Your task to perform on an android device: Do I have any events this weekend? Image 0: 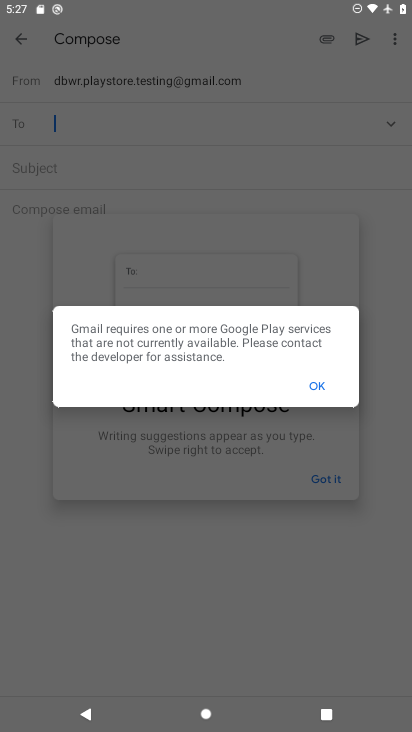
Step 0: press home button
Your task to perform on an android device: Do I have any events this weekend? Image 1: 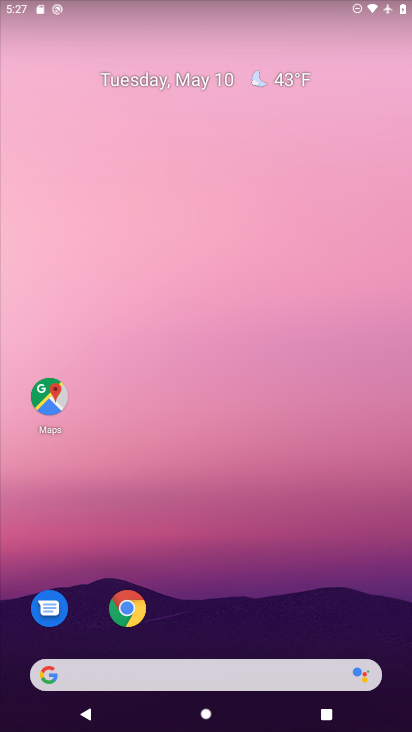
Step 1: drag from (201, 669) to (321, 172)
Your task to perform on an android device: Do I have any events this weekend? Image 2: 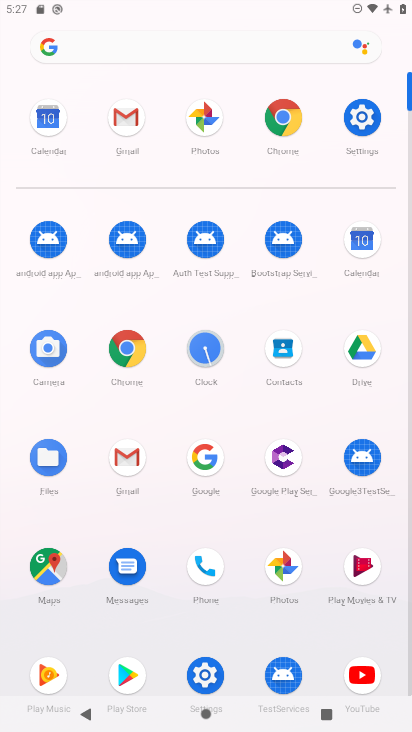
Step 2: click (372, 243)
Your task to perform on an android device: Do I have any events this weekend? Image 3: 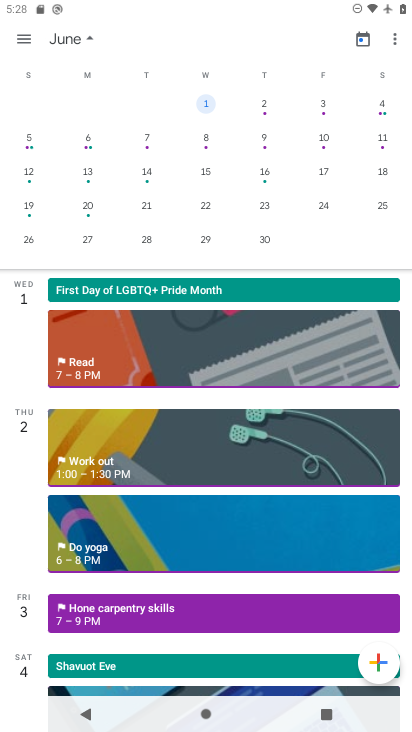
Step 3: drag from (12, 185) to (395, 228)
Your task to perform on an android device: Do I have any events this weekend? Image 4: 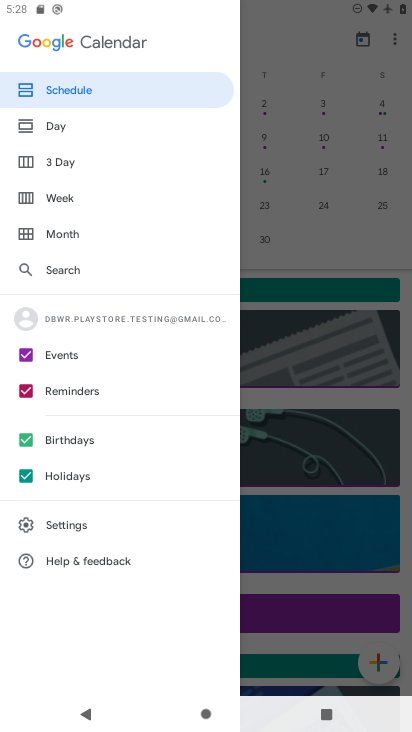
Step 4: drag from (366, 253) to (110, 265)
Your task to perform on an android device: Do I have any events this weekend? Image 5: 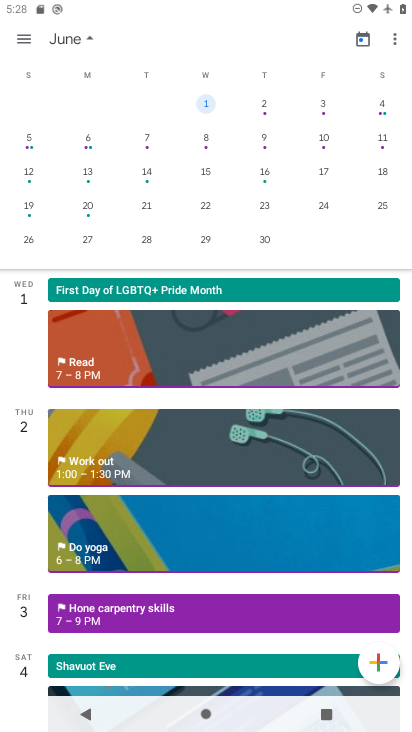
Step 5: drag from (148, 163) to (400, 189)
Your task to perform on an android device: Do I have any events this weekend? Image 6: 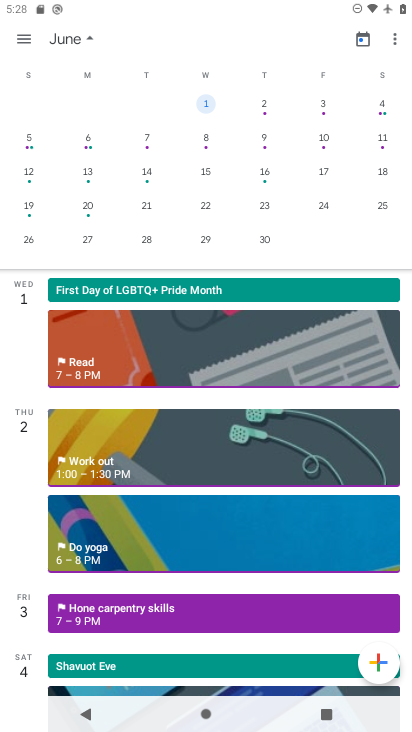
Step 6: drag from (55, 186) to (410, 206)
Your task to perform on an android device: Do I have any events this weekend? Image 7: 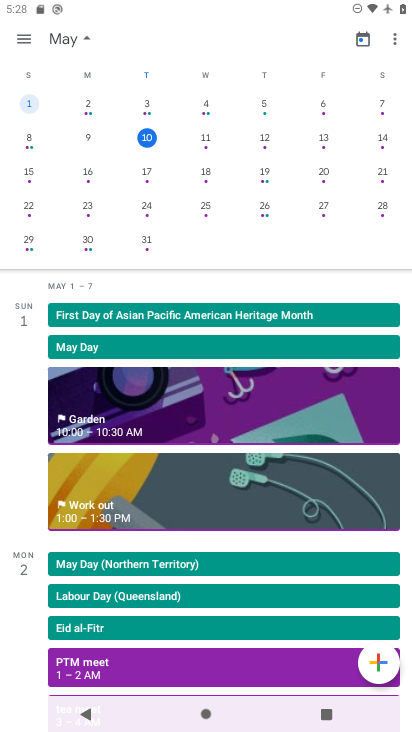
Step 7: click (150, 135)
Your task to perform on an android device: Do I have any events this weekend? Image 8: 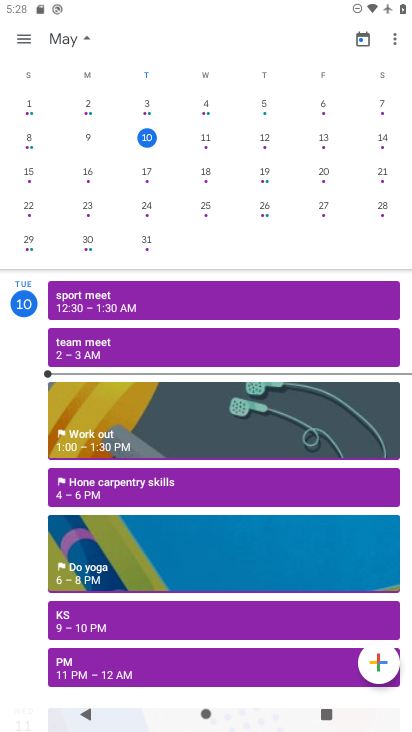
Step 8: drag from (204, 616) to (348, 122)
Your task to perform on an android device: Do I have any events this weekend? Image 9: 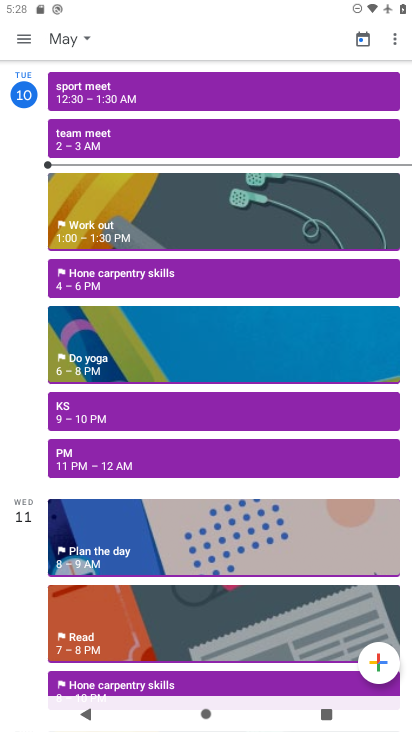
Step 9: drag from (245, 612) to (346, 221)
Your task to perform on an android device: Do I have any events this weekend? Image 10: 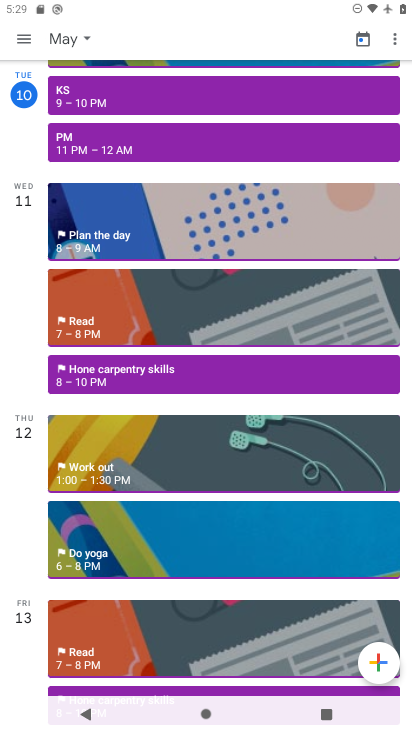
Step 10: click (106, 460)
Your task to perform on an android device: Do I have any events this weekend? Image 11: 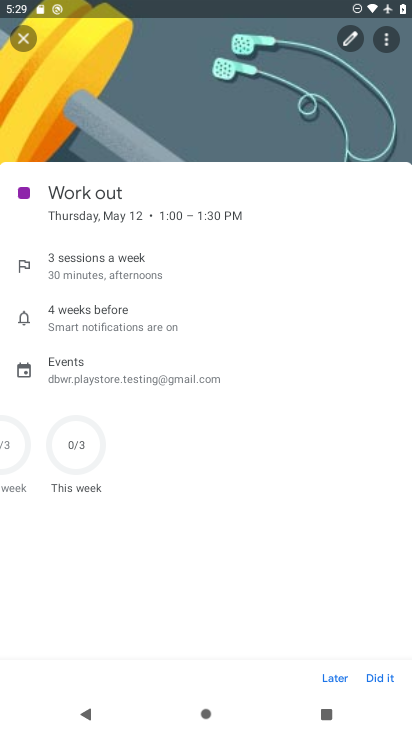
Step 11: task complete